Your task to perform on an android device: star an email in the gmail app Image 0: 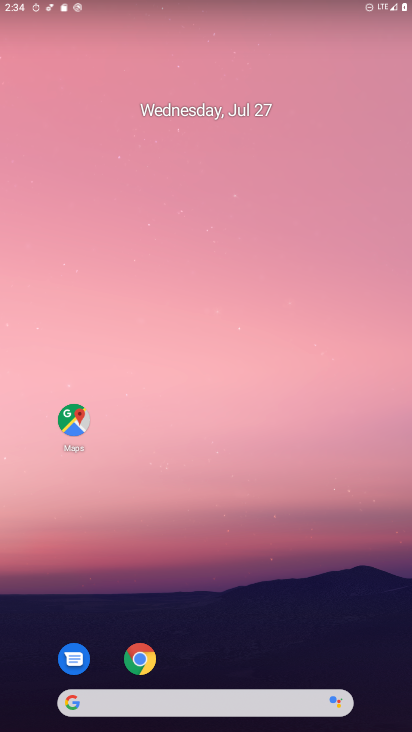
Step 0: drag from (287, 358) to (327, 111)
Your task to perform on an android device: star an email in the gmail app Image 1: 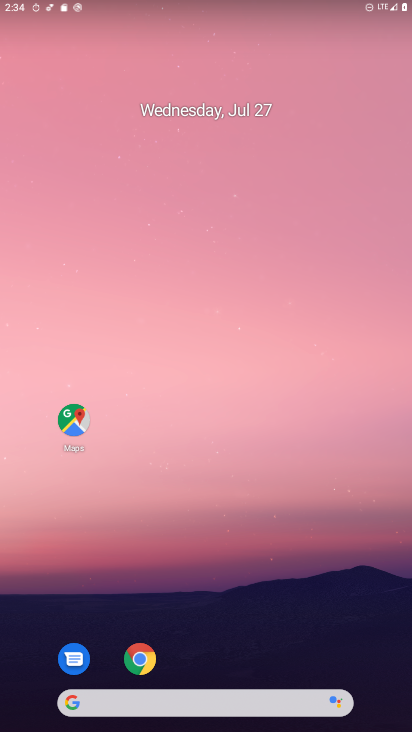
Step 1: drag from (287, 617) to (279, 31)
Your task to perform on an android device: star an email in the gmail app Image 2: 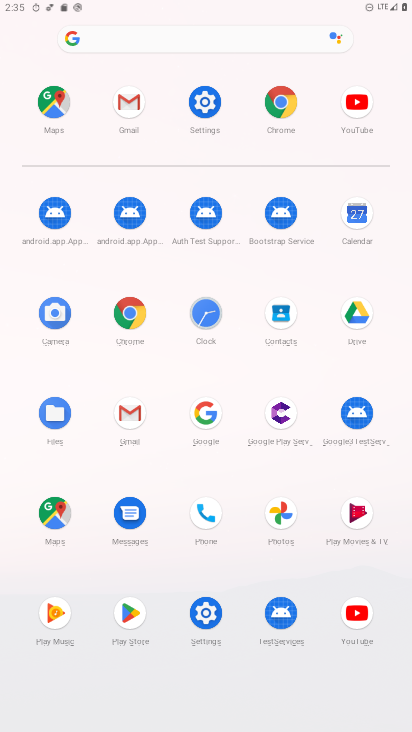
Step 2: click (122, 416)
Your task to perform on an android device: star an email in the gmail app Image 3: 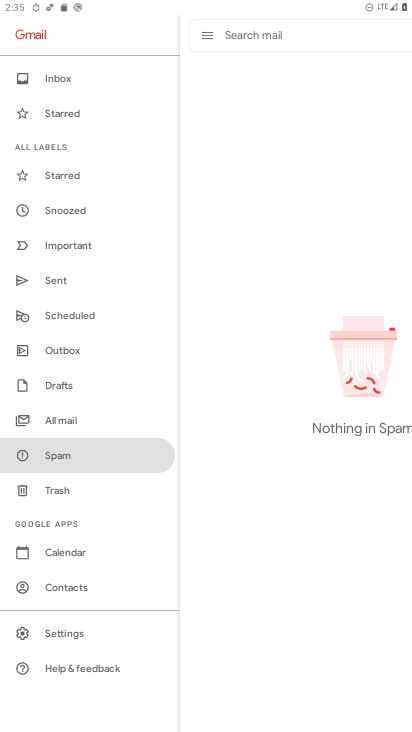
Step 3: click (64, 434)
Your task to perform on an android device: star an email in the gmail app Image 4: 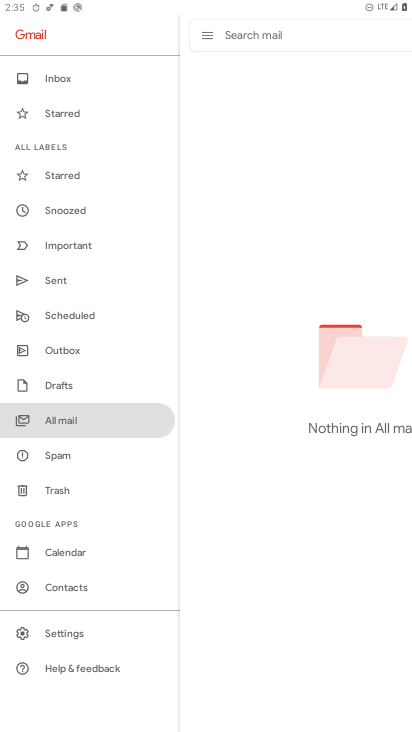
Step 4: task complete